Your task to perform on an android device: open app "Speedtest by Ookla" Image 0: 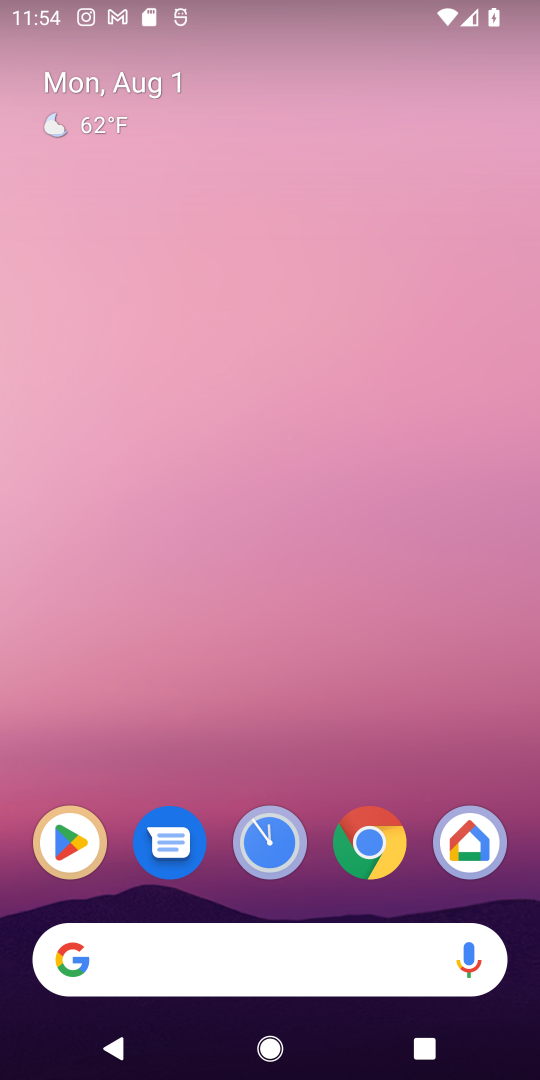
Step 0: click (88, 851)
Your task to perform on an android device: open app "Speedtest by Ookla" Image 1: 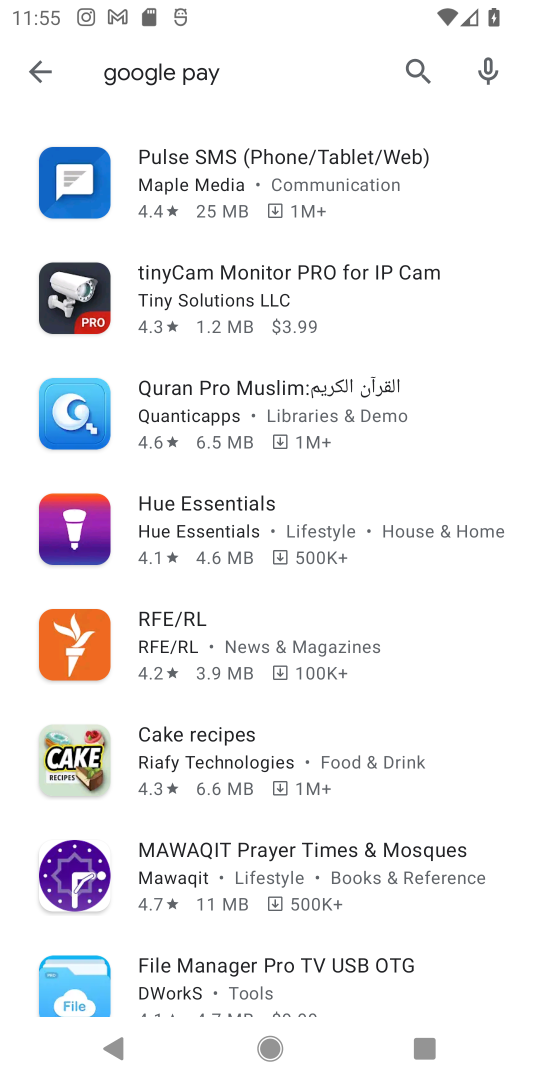
Step 1: press home button
Your task to perform on an android device: open app "Speedtest by Ookla" Image 2: 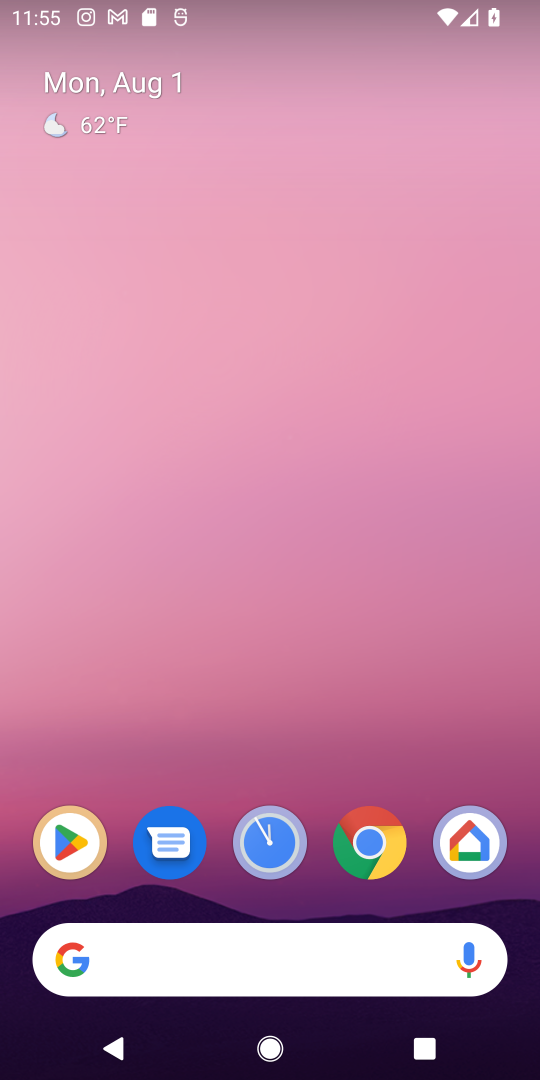
Step 2: click (38, 840)
Your task to perform on an android device: open app "Speedtest by Ookla" Image 3: 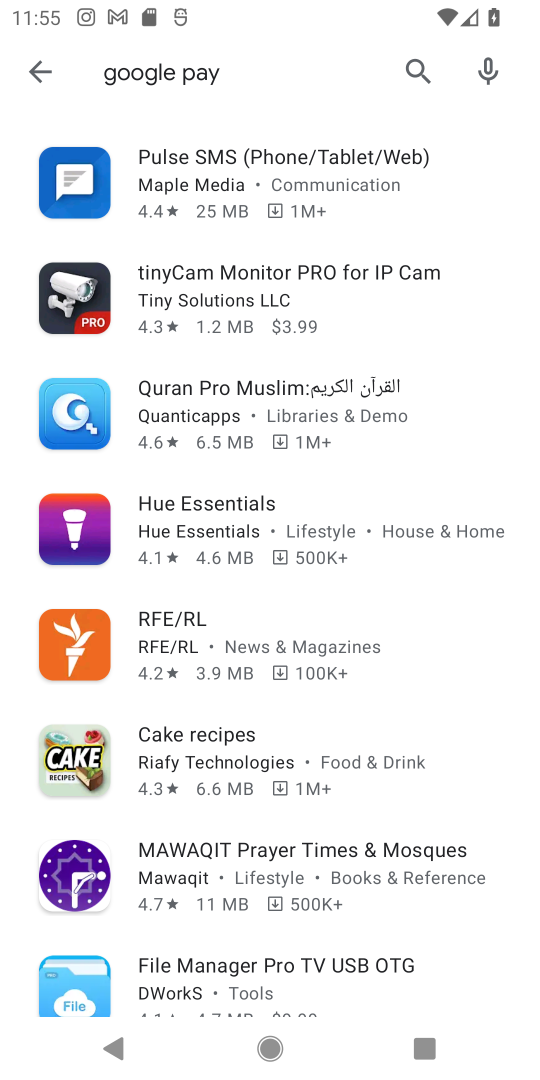
Step 3: click (407, 65)
Your task to perform on an android device: open app "Speedtest by Ookla" Image 4: 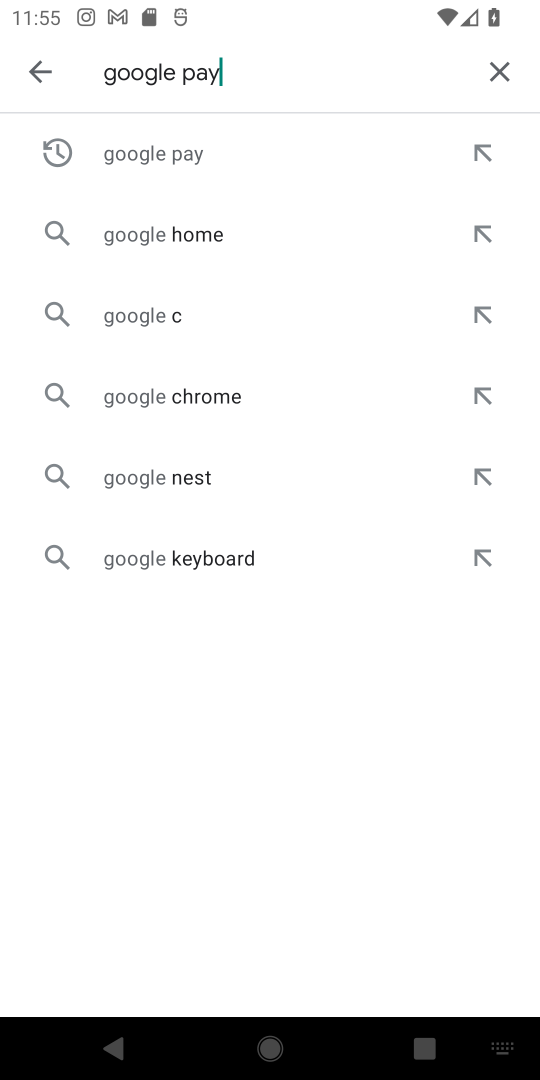
Step 4: click (488, 62)
Your task to perform on an android device: open app "Speedtest by Ookla" Image 5: 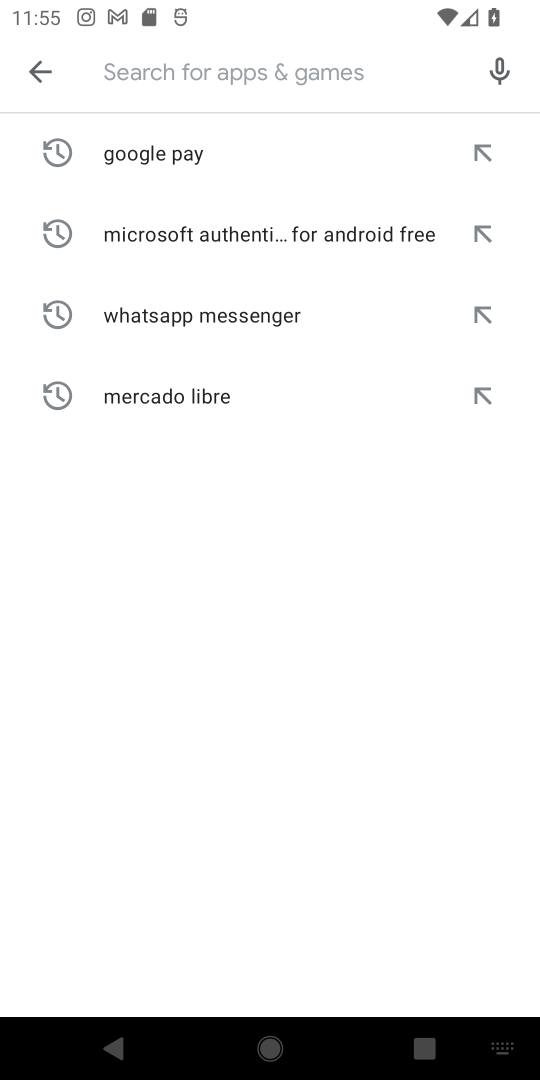
Step 5: click (169, 81)
Your task to perform on an android device: open app "Speedtest by Ookla" Image 6: 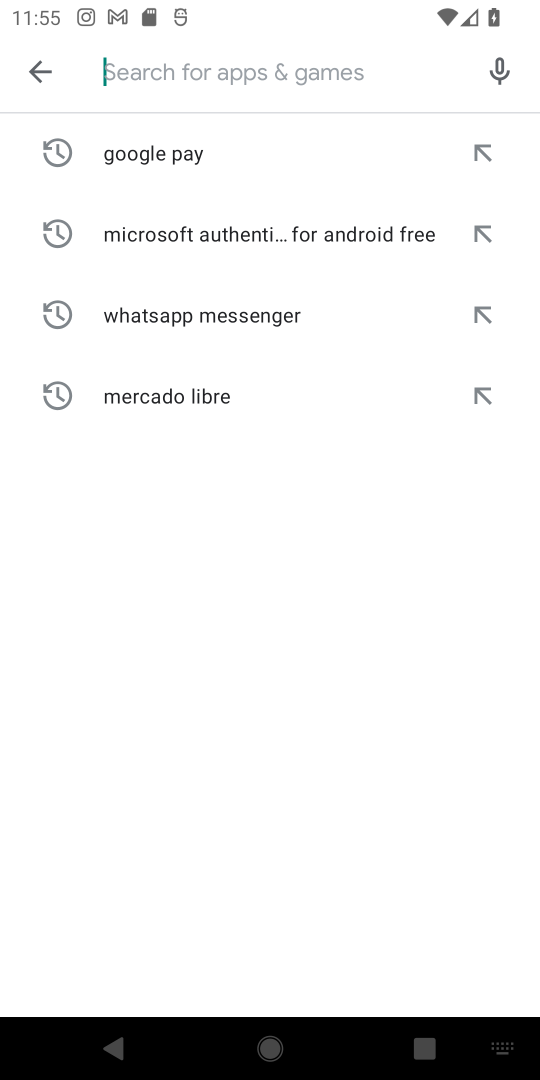
Step 6: type "Speedtest by Ookla"
Your task to perform on an android device: open app "Speedtest by Ookla" Image 7: 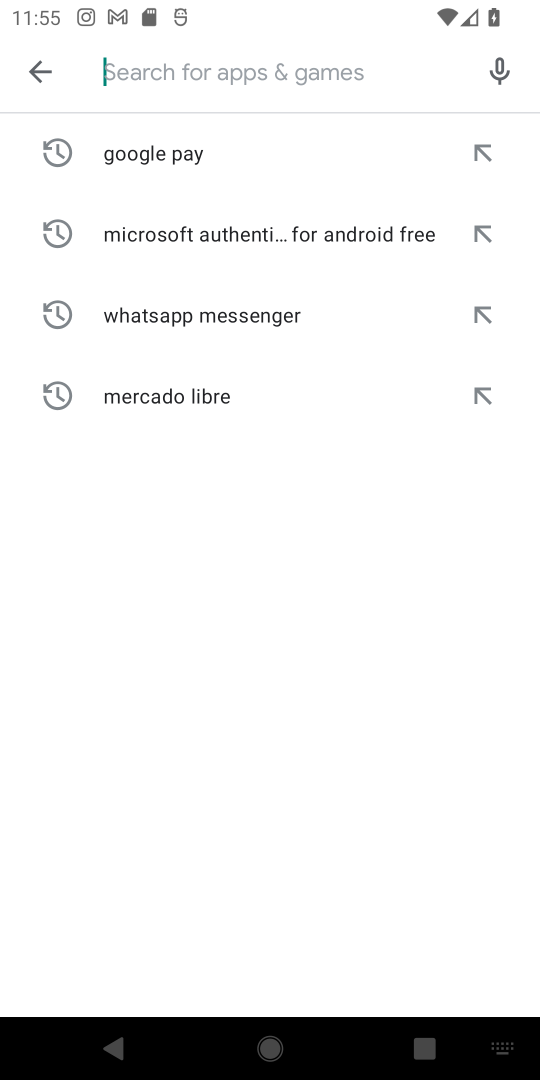
Step 7: click (111, 435)
Your task to perform on an android device: open app "Speedtest by Ookla" Image 8: 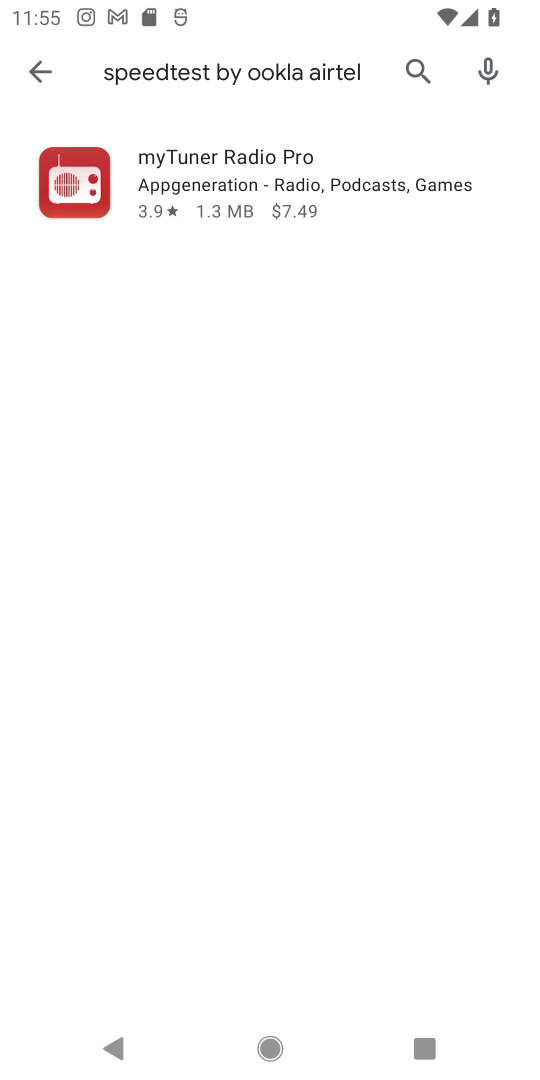
Step 8: click (420, 57)
Your task to perform on an android device: open app "Speedtest by Ookla" Image 9: 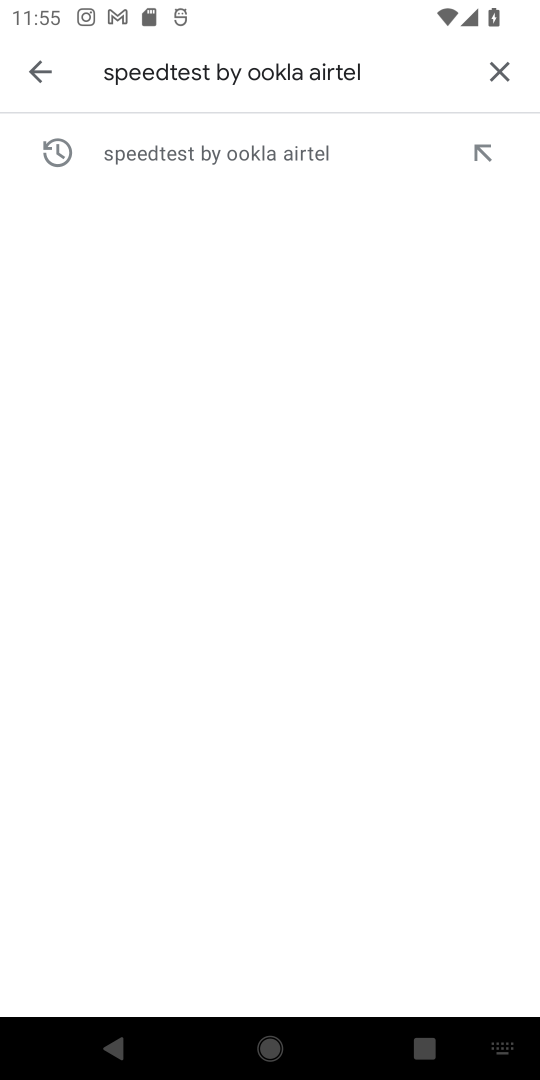
Step 9: click (500, 60)
Your task to perform on an android device: open app "Speedtest by Ookla" Image 10: 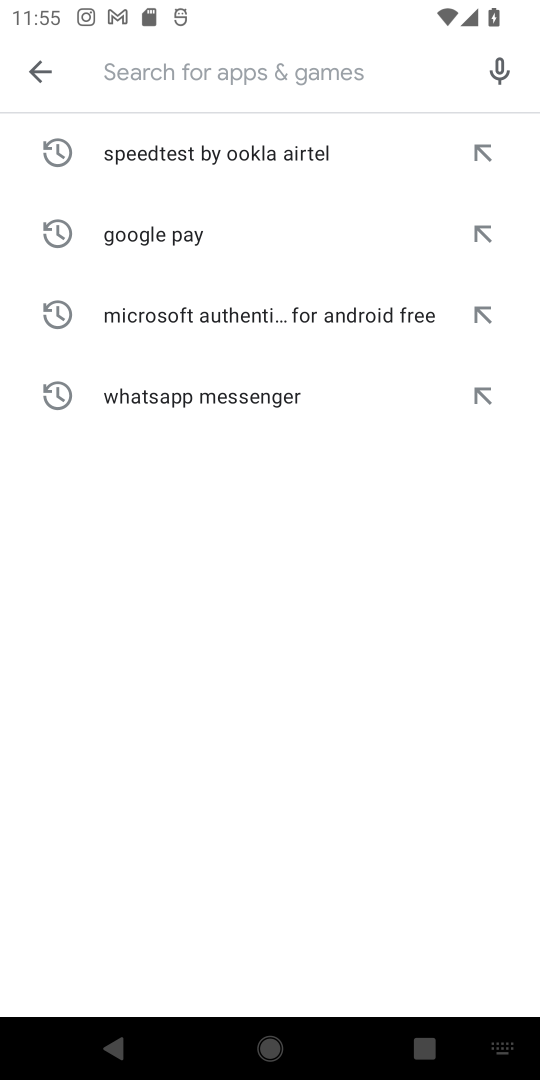
Step 10: type "speet test"
Your task to perform on an android device: open app "Speedtest by Ookla" Image 11: 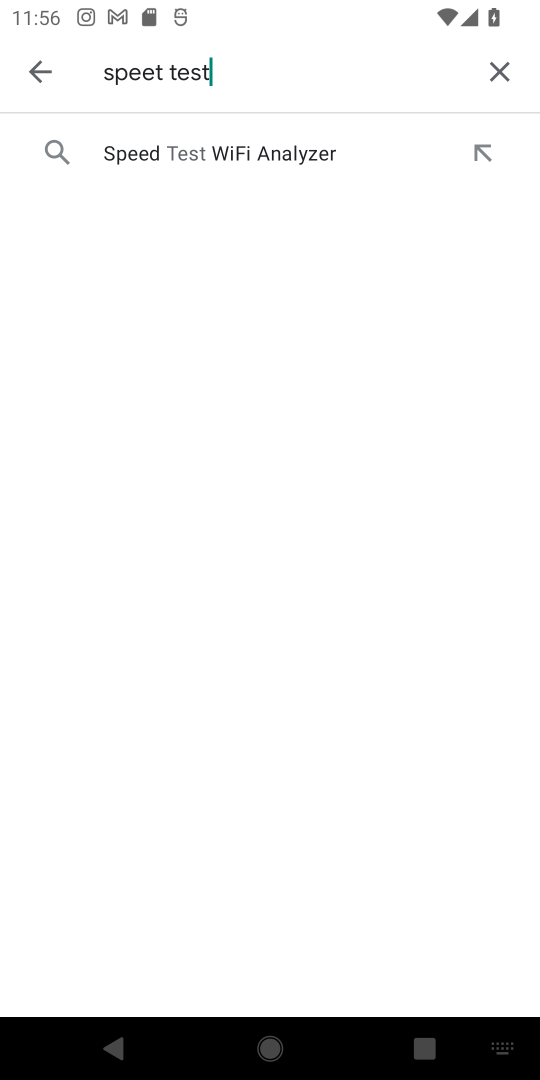
Step 11: click (168, 164)
Your task to perform on an android device: open app "Speedtest by Ookla" Image 12: 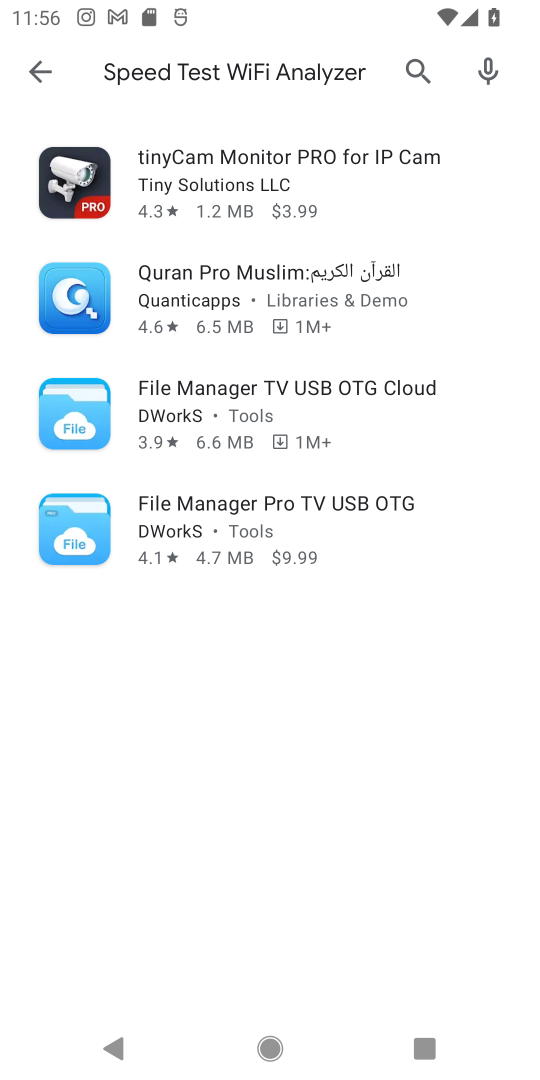
Step 12: click (413, 64)
Your task to perform on an android device: open app "Speedtest by Ookla" Image 13: 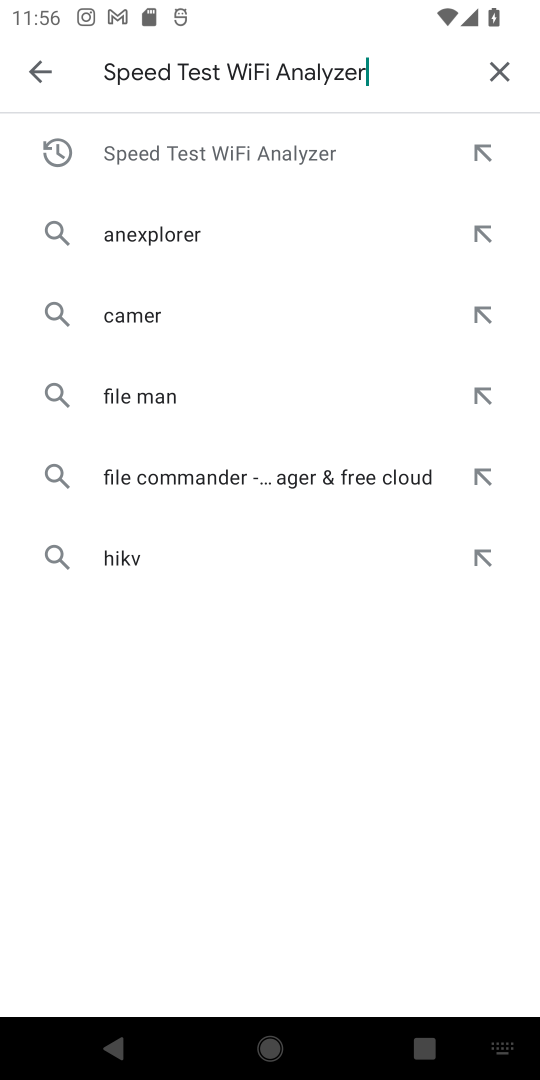
Step 13: click (494, 74)
Your task to perform on an android device: open app "Speedtest by Ookla" Image 14: 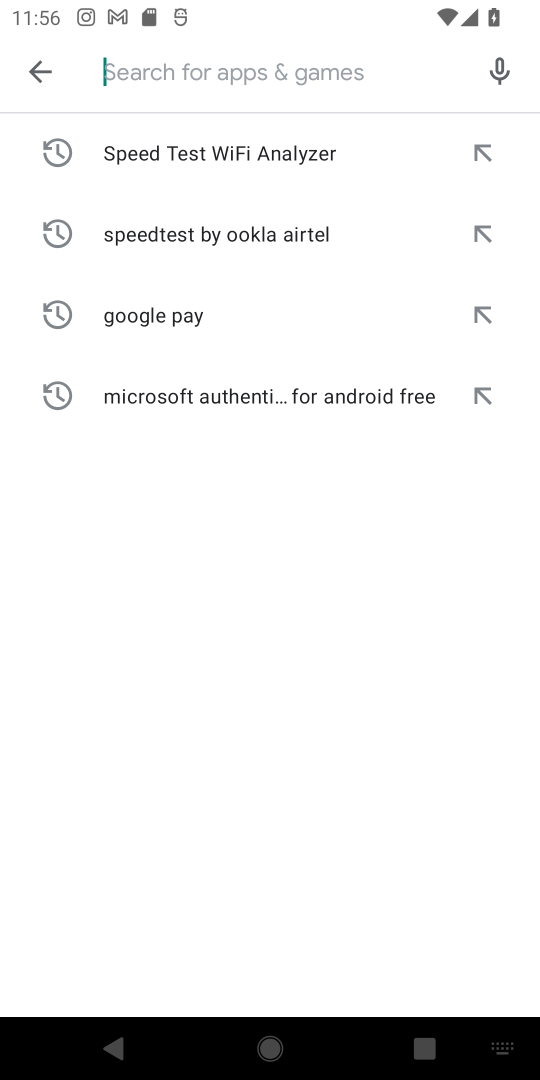
Step 14: type "speedtest"
Your task to perform on an android device: open app "Speedtest by Ookla" Image 15: 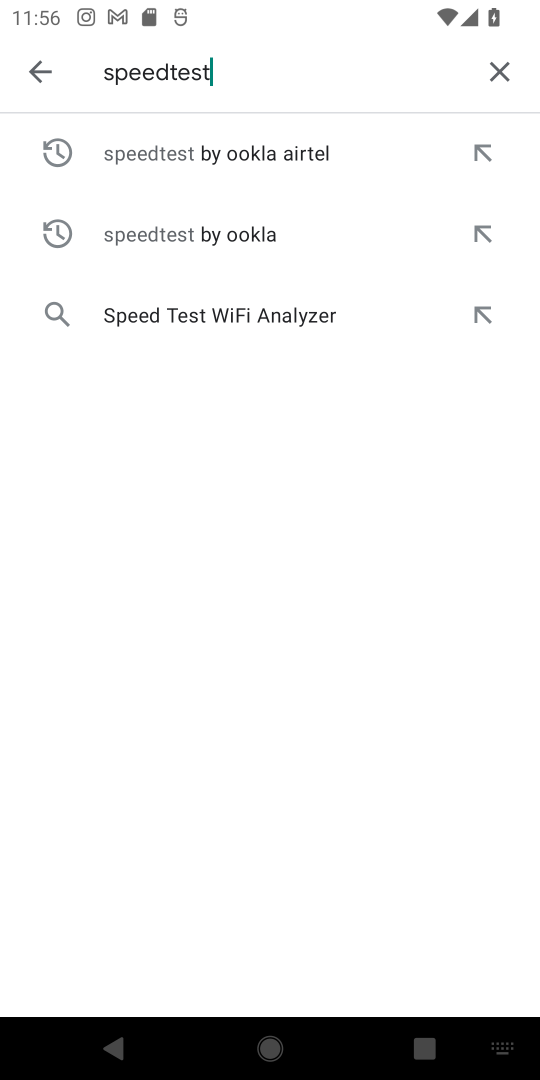
Step 15: click (251, 232)
Your task to perform on an android device: open app "Speedtest by Ookla" Image 16: 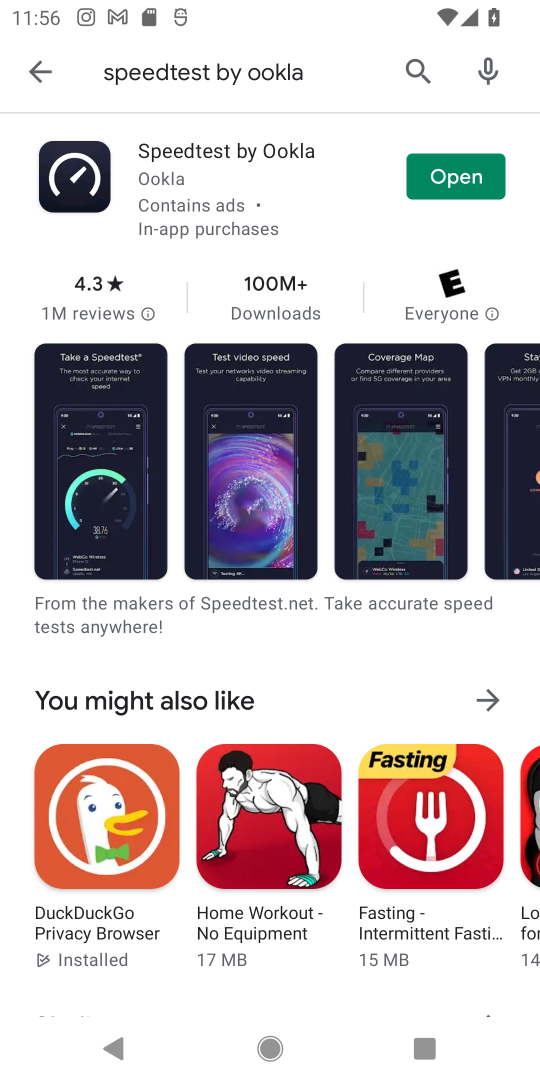
Step 16: click (436, 173)
Your task to perform on an android device: open app "Speedtest by Ookla" Image 17: 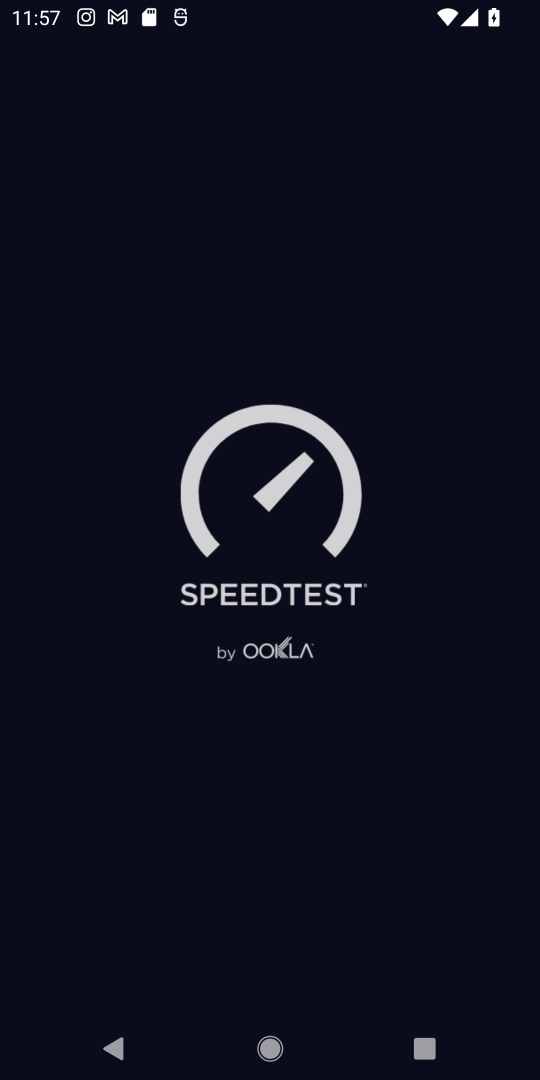
Step 17: task complete